Your task to perform on an android device: Show me recent news Image 0: 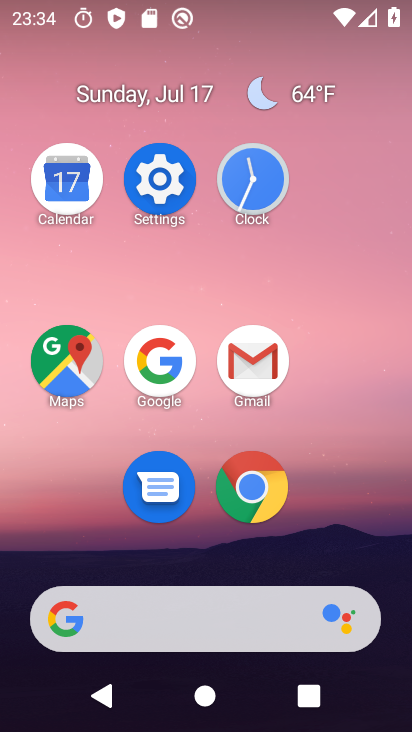
Step 0: click (152, 370)
Your task to perform on an android device: Show me recent news Image 1: 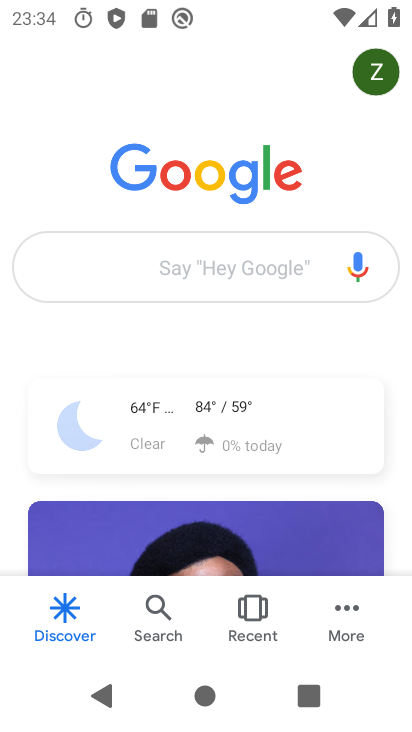
Step 1: click (233, 276)
Your task to perform on an android device: Show me recent news Image 2: 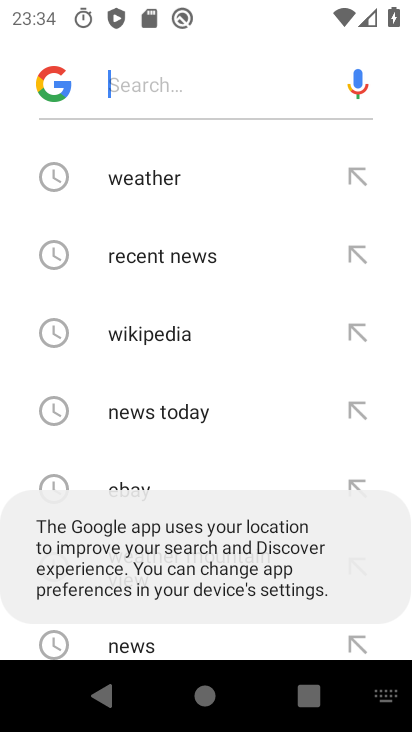
Step 2: drag from (191, 423) to (209, 143)
Your task to perform on an android device: Show me recent news Image 3: 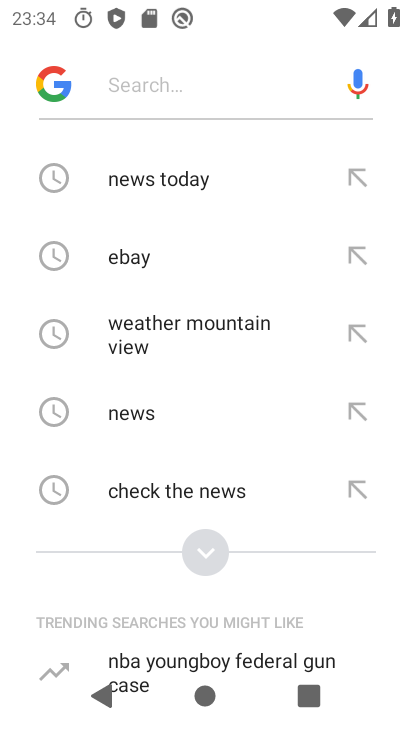
Step 3: click (176, 419)
Your task to perform on an android device: Show me recent news Image 4: 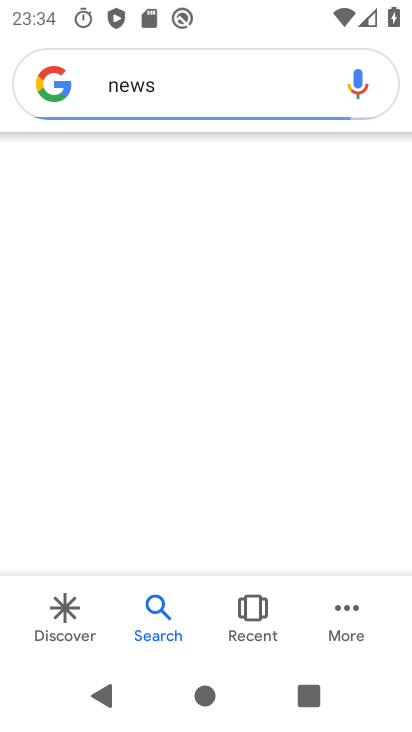
Step 4: task complete